Your task to perform on an android device: move a message to another label in the gmail app Image 0: 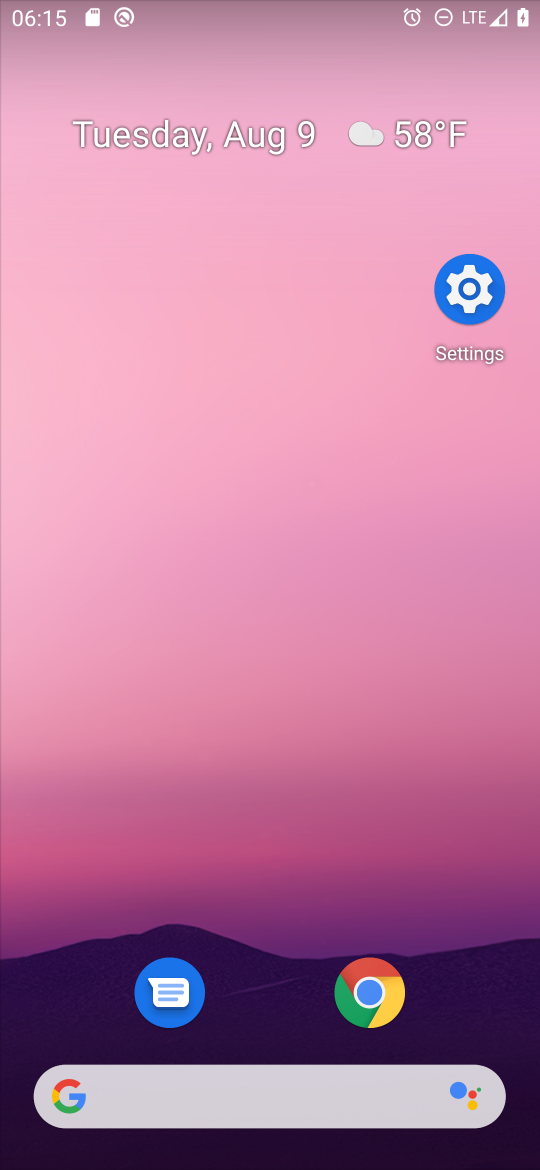
Step 0: drag from (303, 1076) to (346, 760)
Your task to perform on an android device: move a message to another label in the gmail app Image 1: 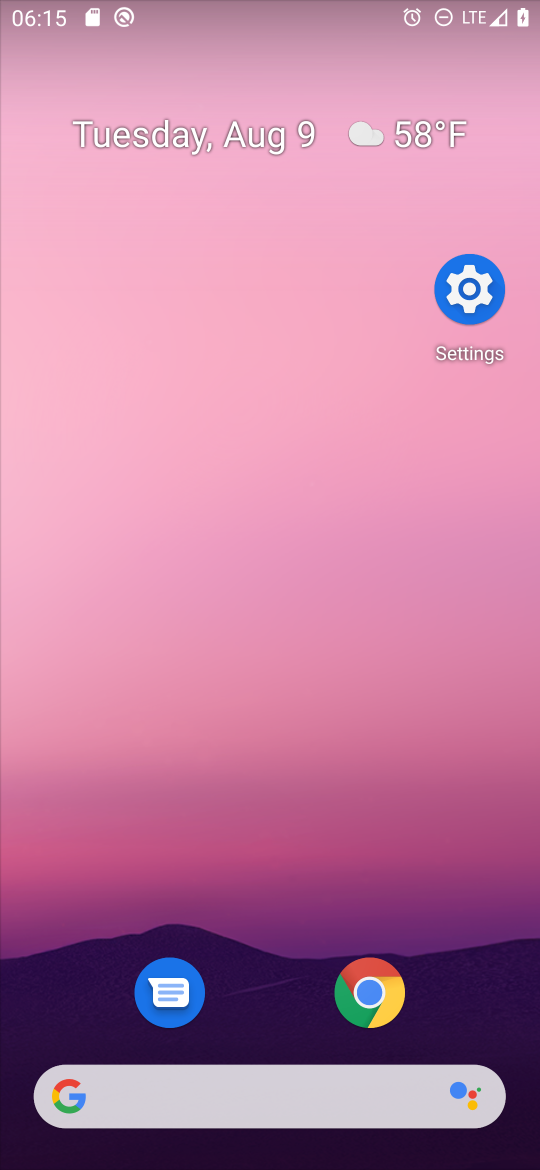
Step 1: drag from (252, 1120) to (262, 33)
Your task to perform on an android device: move a message to another label in the gmail app Image 2: 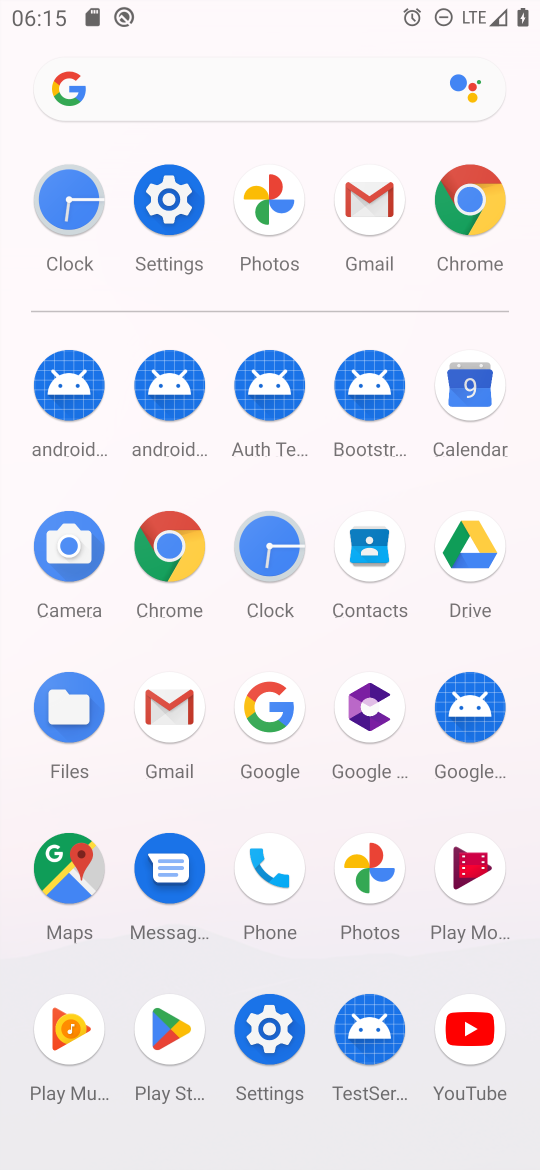
Step 2: click (159, 720)
Your task to perform on an android device: move a message to another label in the gmail app Image 3: 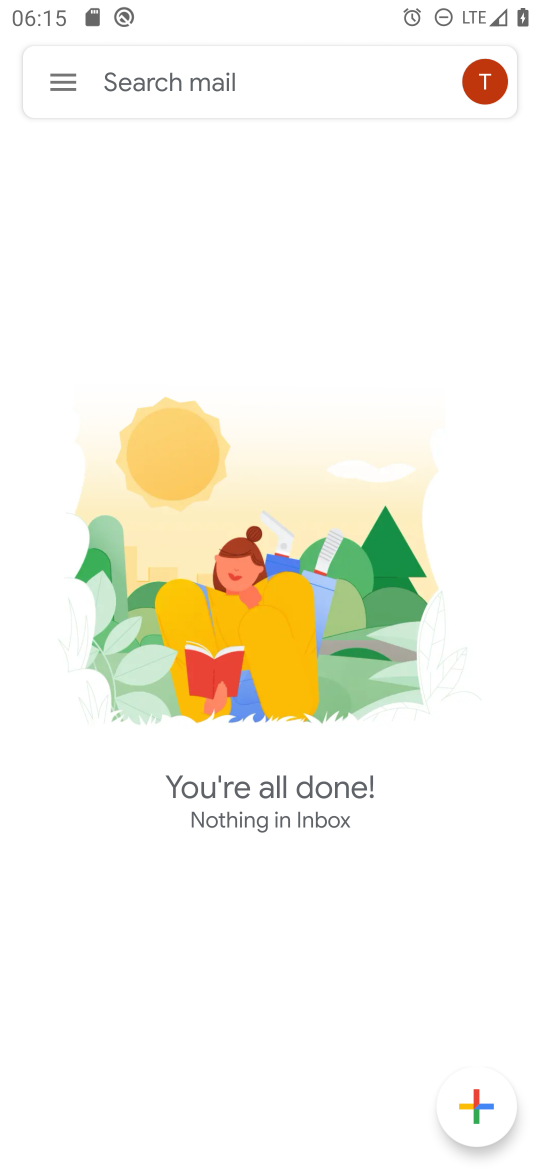
Step 3: click (69, 69)
Your task to perform on an android device: move a message to another label in the gmail app Image 4: 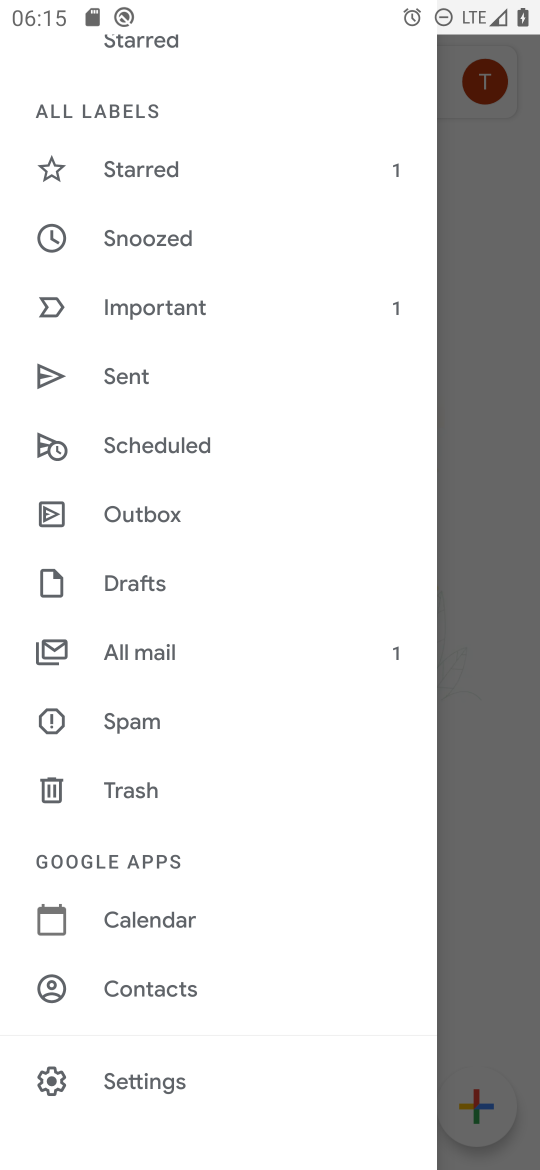
Step 4: task complete